Your task to perform on an android device: Open Android settings Image 0: 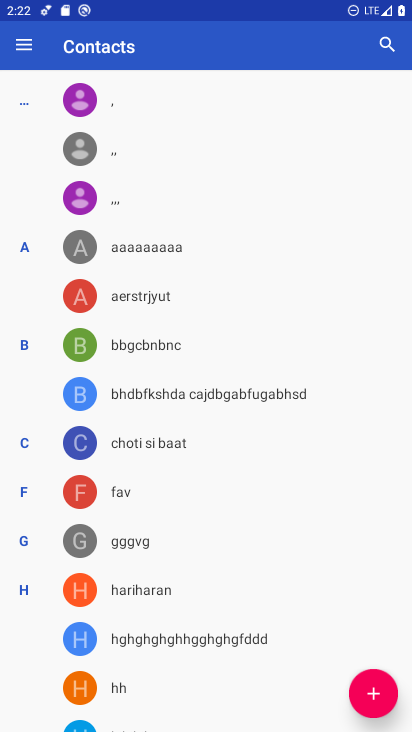
Step 0: press home button
Your task to perform on an android device: Open Android settings Image 1: 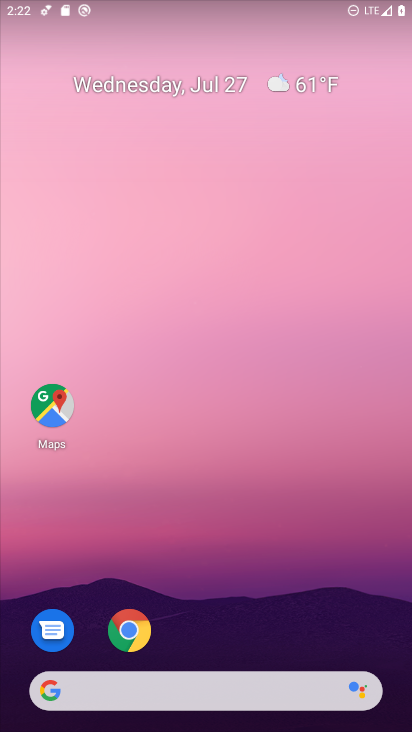
Step 1: drag from (245, 650) to (257, 83)
Your task to perform on an android device: Open Android settings Image 2: 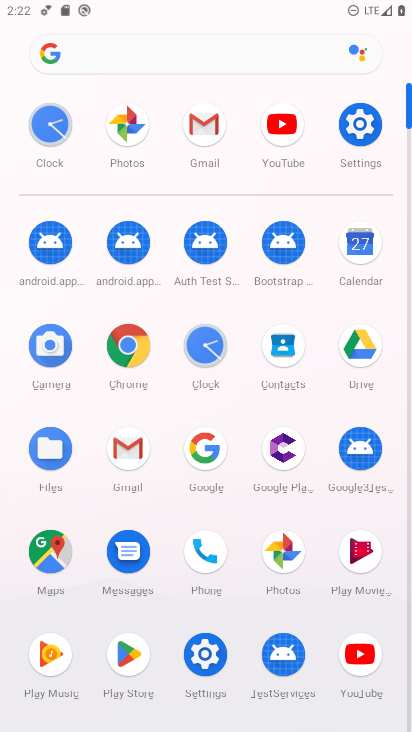
Step 2: click (369, 108)
Your task to perform on an android device: Open Android settings Image 3: 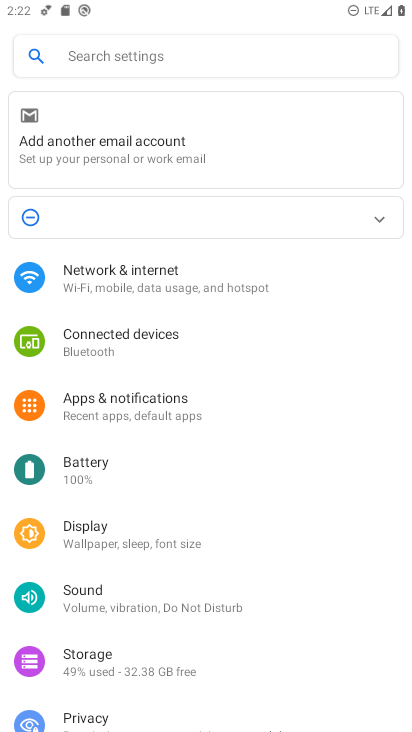
Step 3: drag from (206, 616) to (207, 266)
Your task to perform on an android device: Open Android settings Image 4: 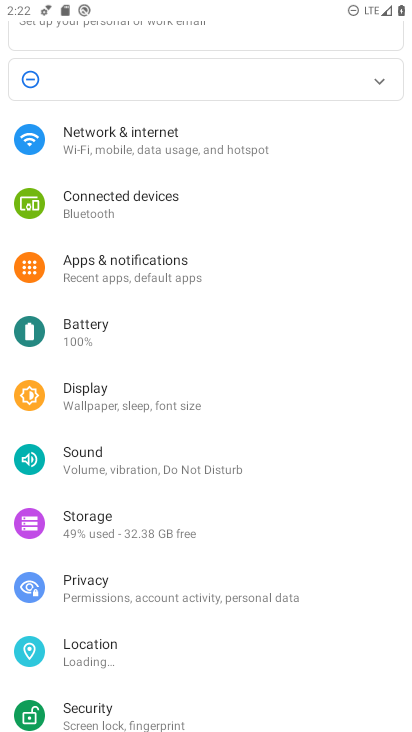
Step 4: drag from (198, 708) to (181, 235)
Your task to perform on an android device: Open Android settings Image 5: 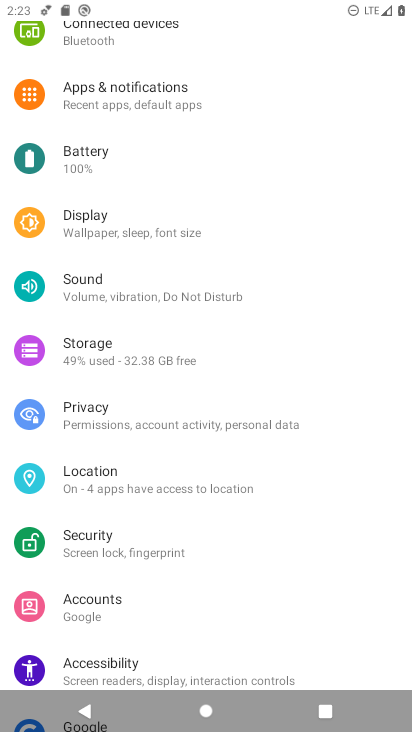
Step 5: drag from (203, 581) to (212, 1)
Your task to perform on an android device: Open Android settings Image 6: 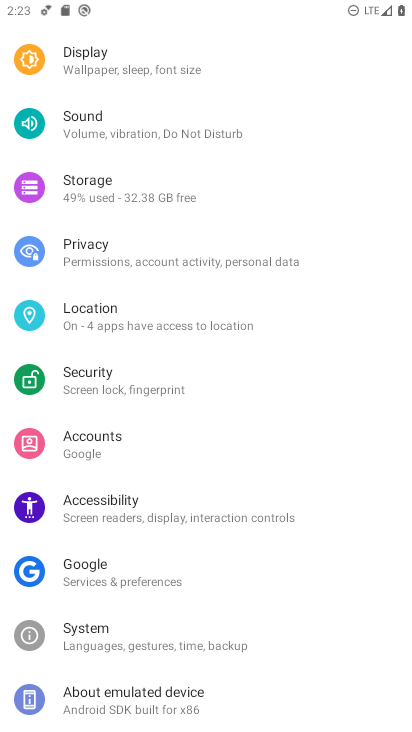
Step 6: click (190, 650)
Your task to perform on an android device: Open Android settings Image 7: 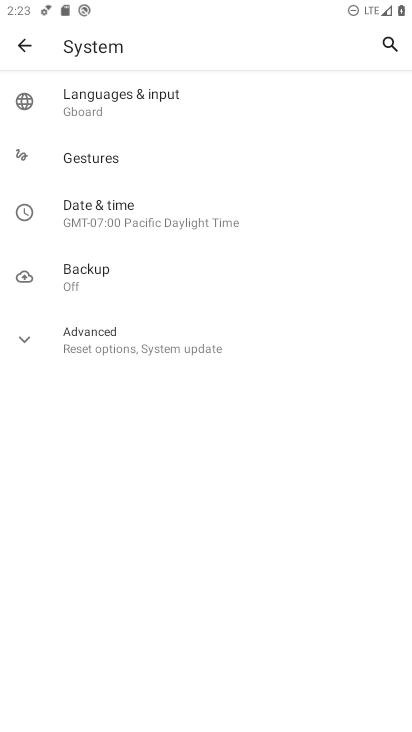
Step 7: task complete